Your task to perform on an android device: When is my next meeting? Image 0: 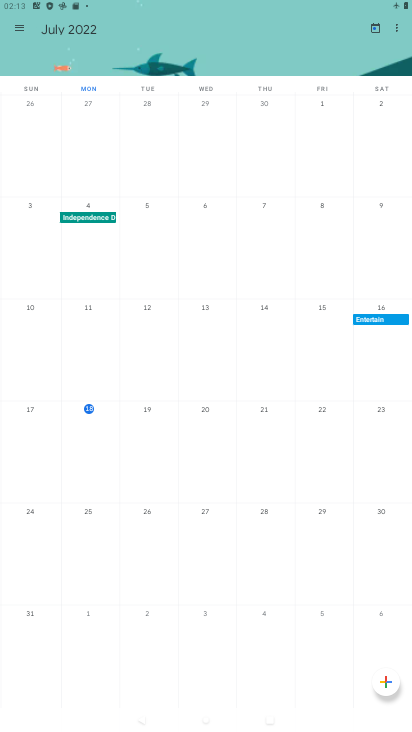
Step 0: press home button
Your task to perform on an android device: When is my next meeting? Image 1: 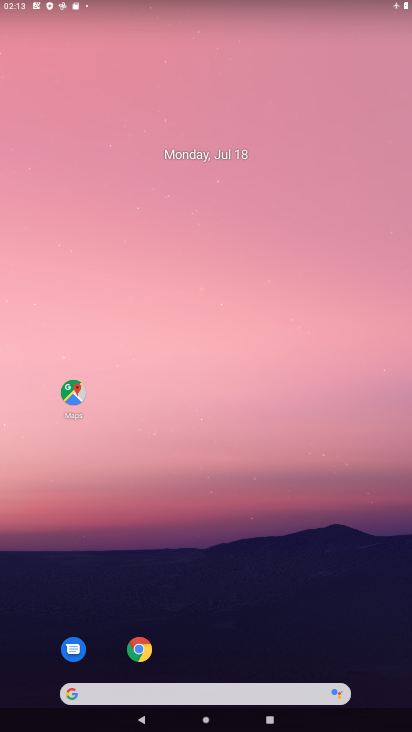
Step 1: drag from (214, 682) to (240, 14)
Your task to perform on an android device: When is my next meeting? Image 2: 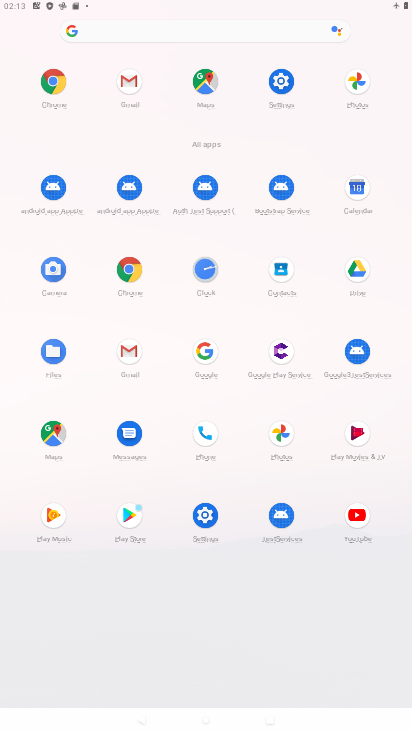
Step 2: click (352, 186)
Your task to perform on an android device: When is my next meeting? Image 3: 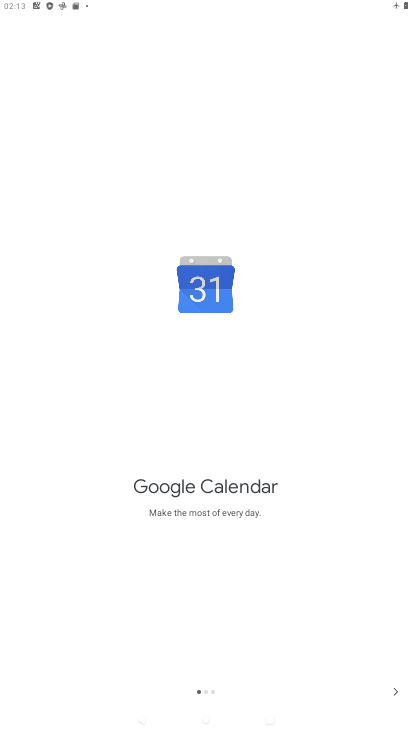
Step 3: click (391, 693)
Your task to perform on an android device: When is my next meeting? Image 4: 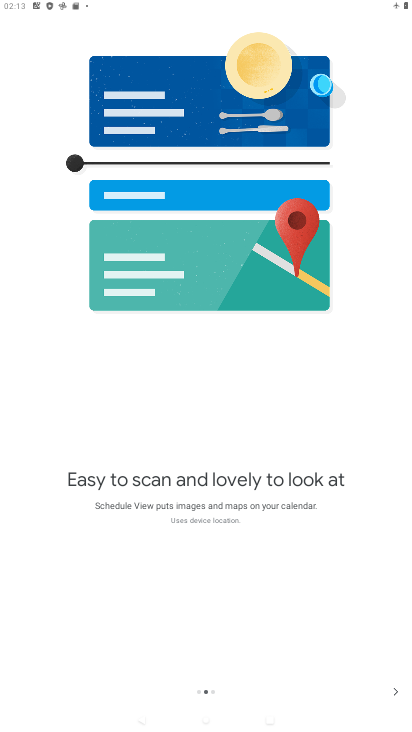
Step 4: click (391, 693)
Your task to perform on an android device: When is my next meeting? Image 5: 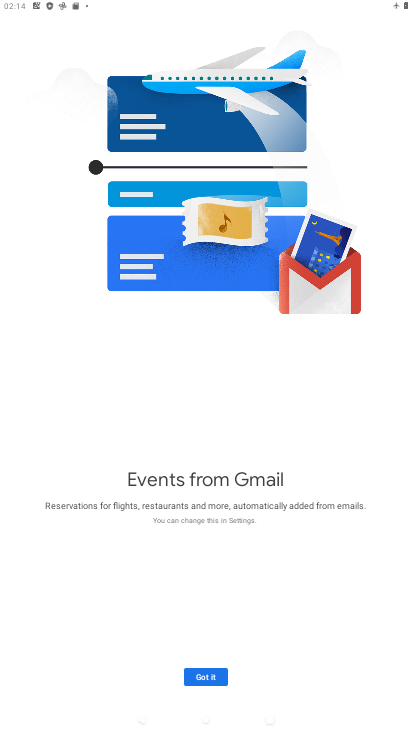
Step 5: click (222, 675)
Your task to perform on an android device: When is my next meeting? Image 6: 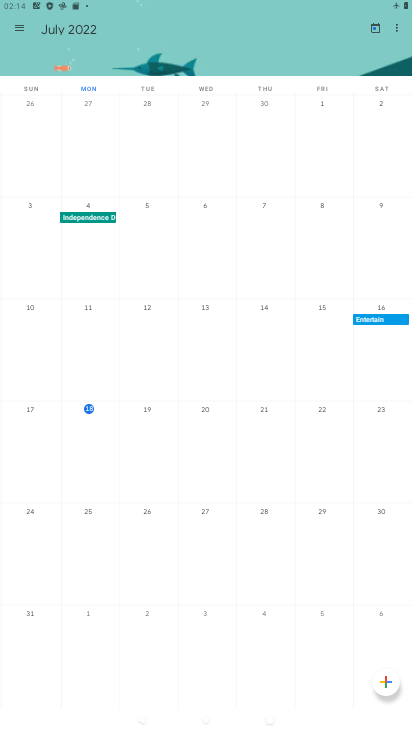
Step 6: task complete